Your task to perform on an android device: Open internet settings Image 0: 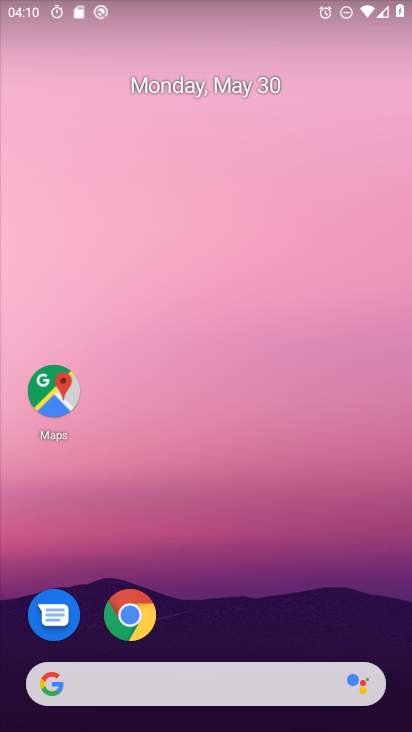
Step 0: click (248, 14)
Your task to perform on an android device: Open internet settings Image 1: 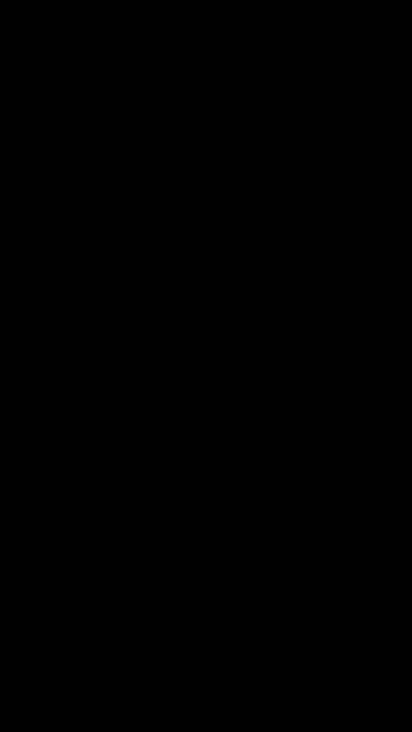
Step 1: press home button
Your task to perform on an android device: Open internet settings Image 2: 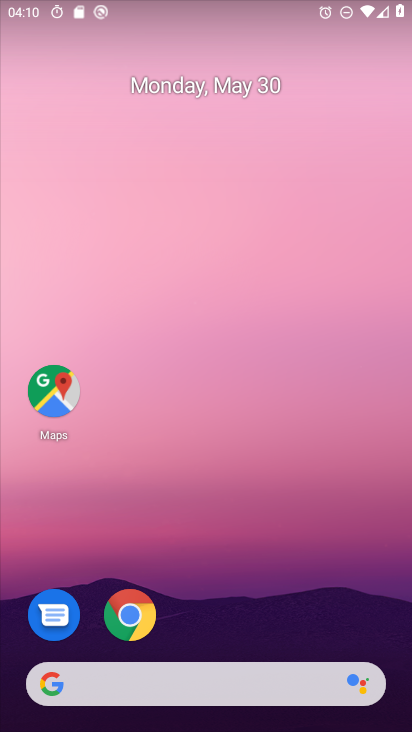
Step 2: drag from (250, 611) to (237, 165)
Your task to perform on an android device: Open internet settings Image 3: 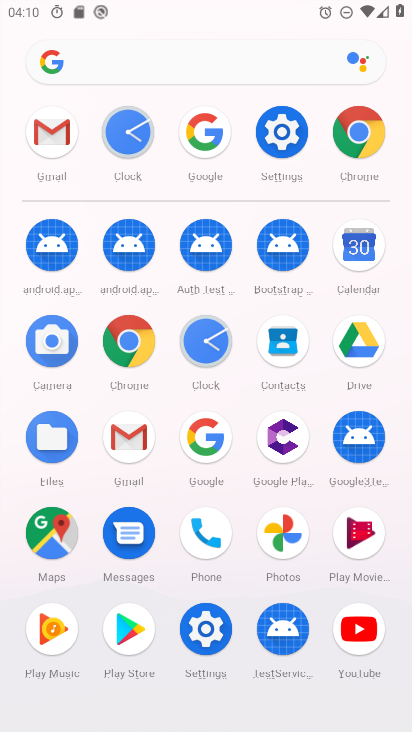
Step 3: click (281, 131)
Your task to perform on an android device: Open internet settings Image 4: 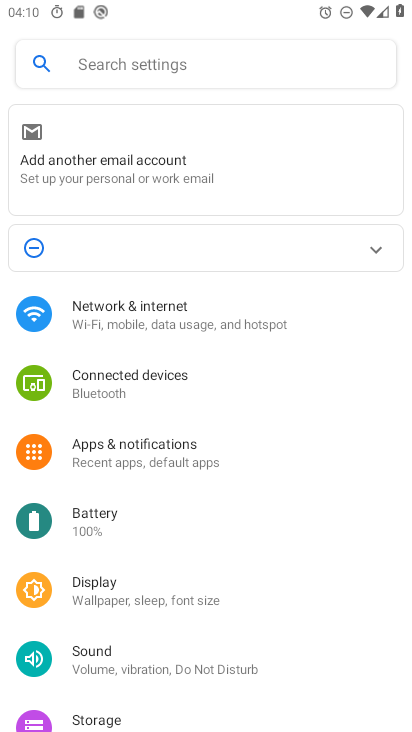
Step 4: click (147, 309)
Your task to perform on an android device: Open internet settings Image 5: 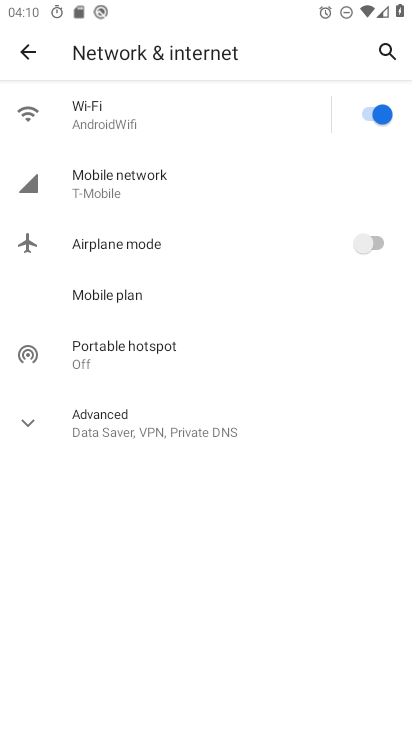
Step 5: click (156, 133)
Your task to perform on an android device: Open internet settings Image 6: 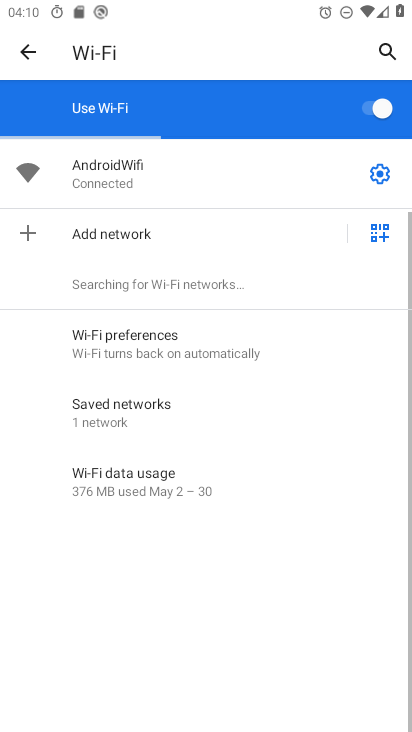
Step 6: task complete